Your task to perform on an android device: Search for the best rated 4K TV on Best Buy. Image 0: 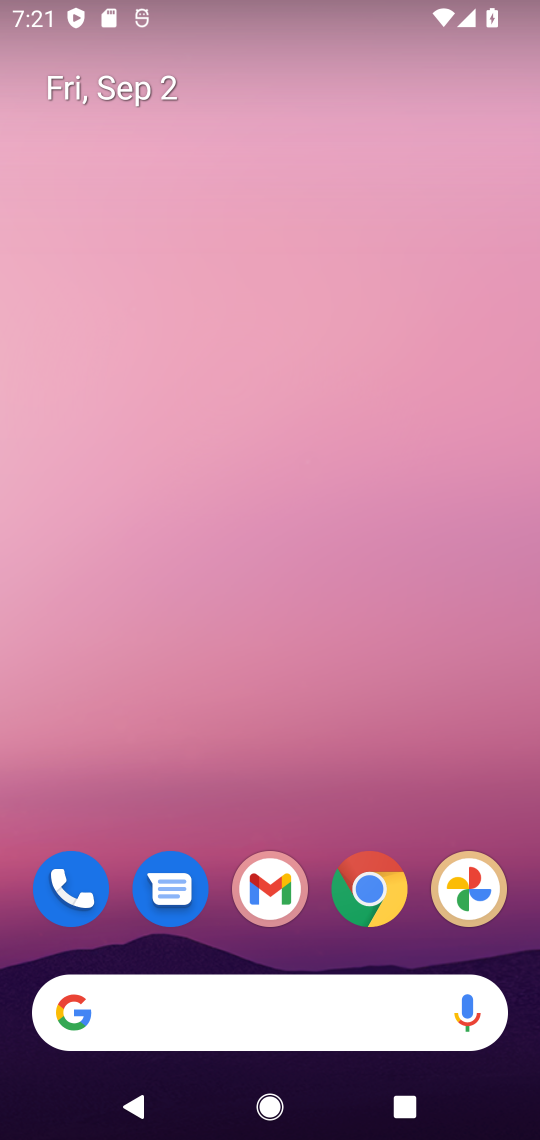
Step 0: click (225, 994)
Your task to perform on an android device: Search for the best rated 4K TV on Best Buy. Image 1: 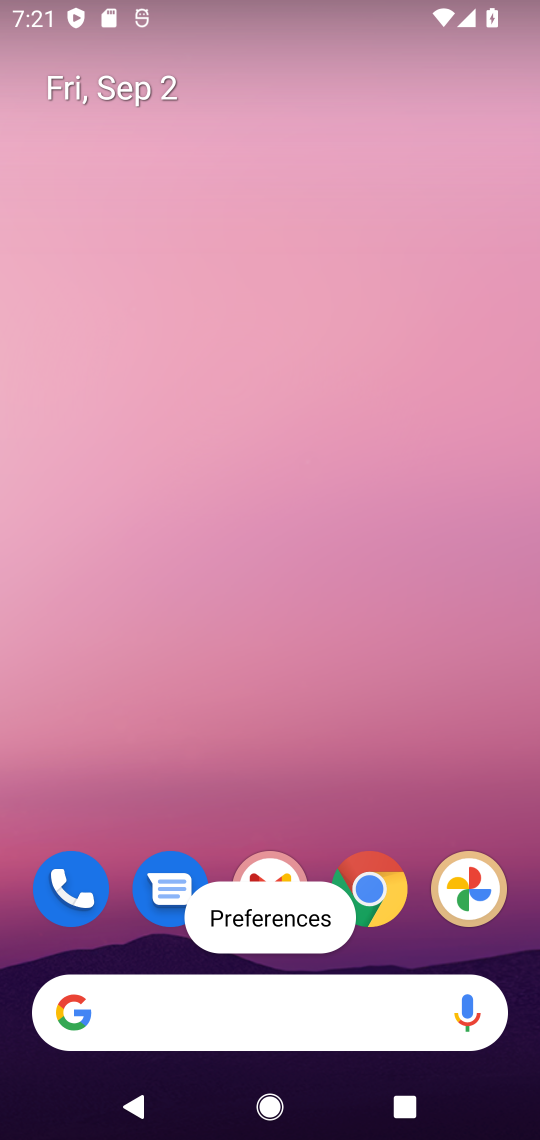
Step 1: click (251, 994)
Your task to perform on an android device: Search for the best rated 4K TV on Best Buy. Image 2: 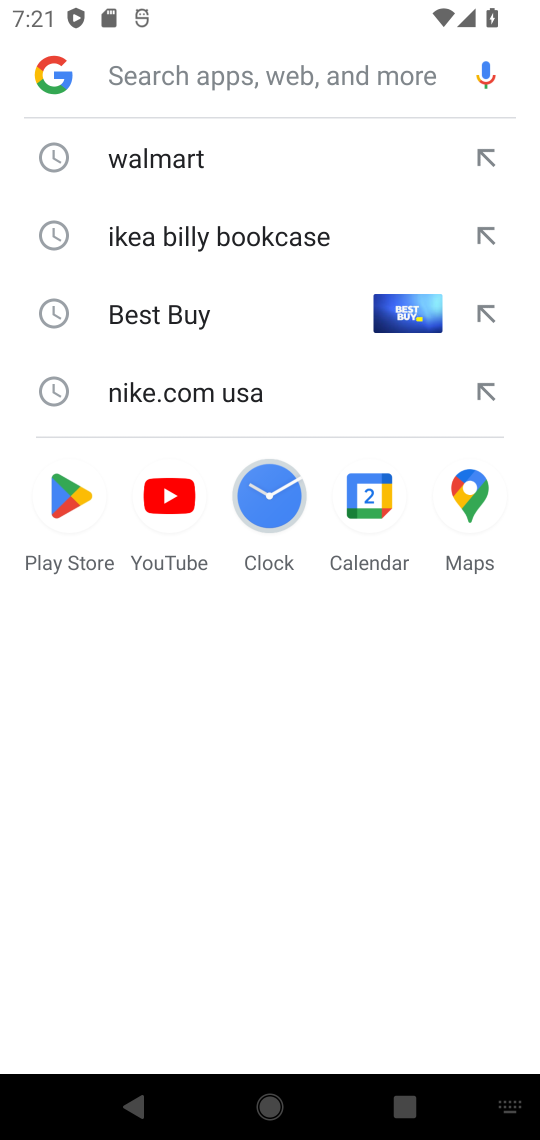
Step 2: click (200, 305)
Your task to perform on an android device: Search for the best rated 4K TV on Best Buy. Image 3: 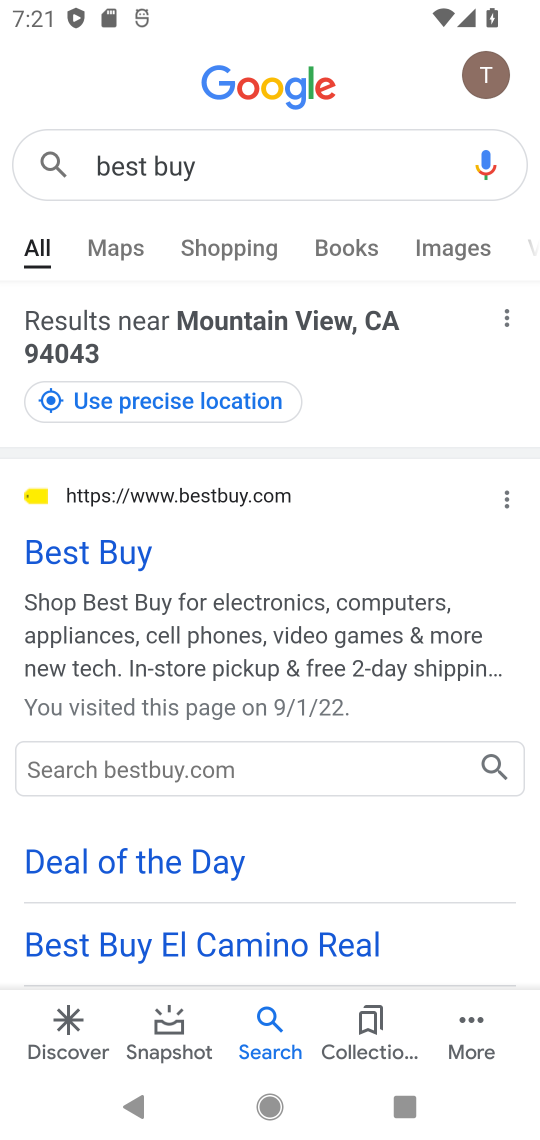
Step 3: click (121, 539)
Your task to perform on an android device: Search for the best rated 4K TV on Best Buy. Image 4: 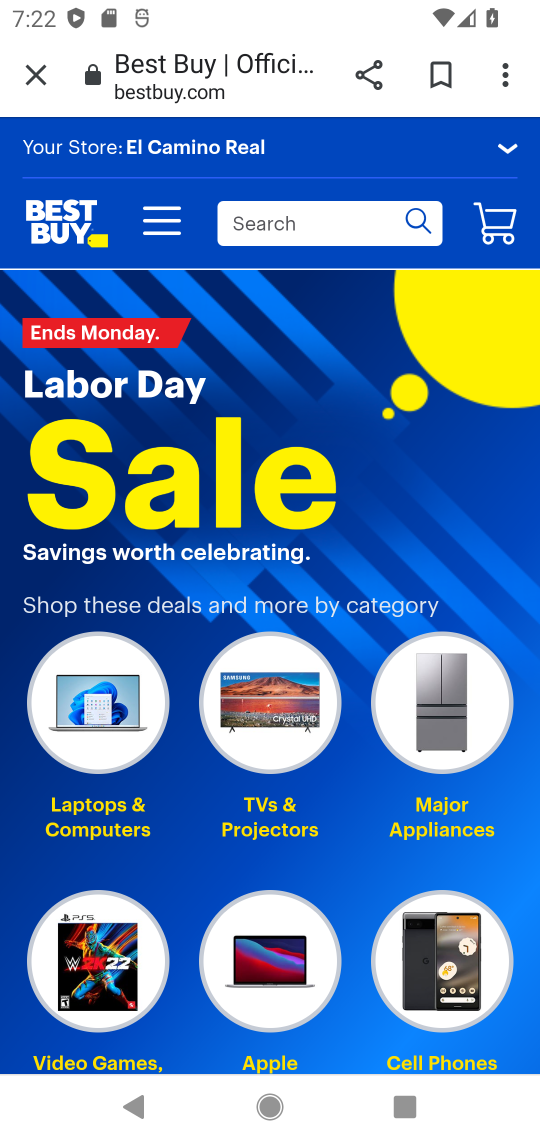
Step 4: click (311, 245)
Your task to perform on an android device: Search for the best rated 4K TV on Best Buy. Image 5: 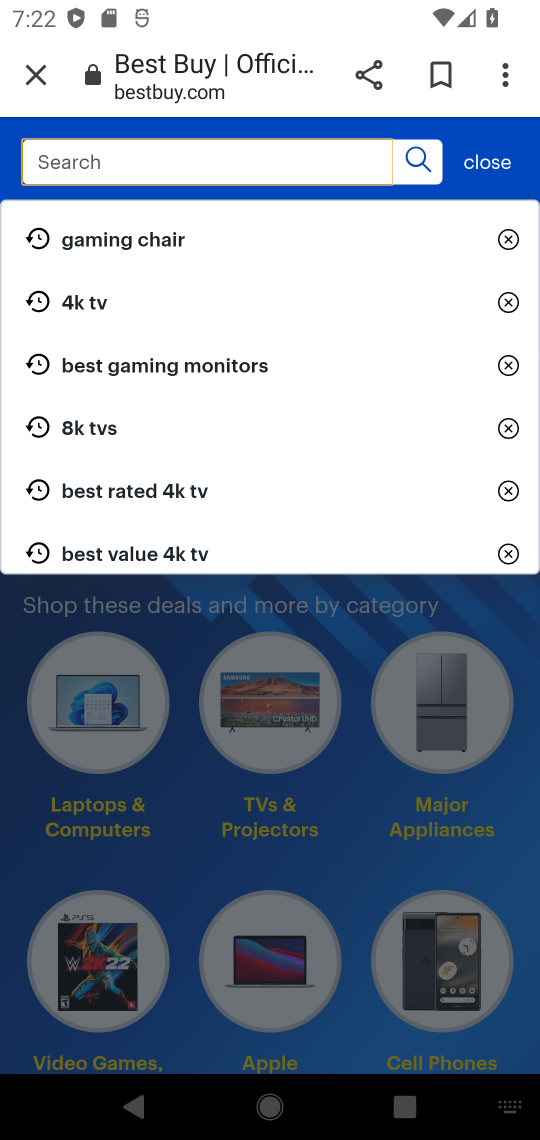
Step 5: type "4K TV"
Your task to perform on an android device: Search for the best rated 4K TV on Best Buy. Image 6: 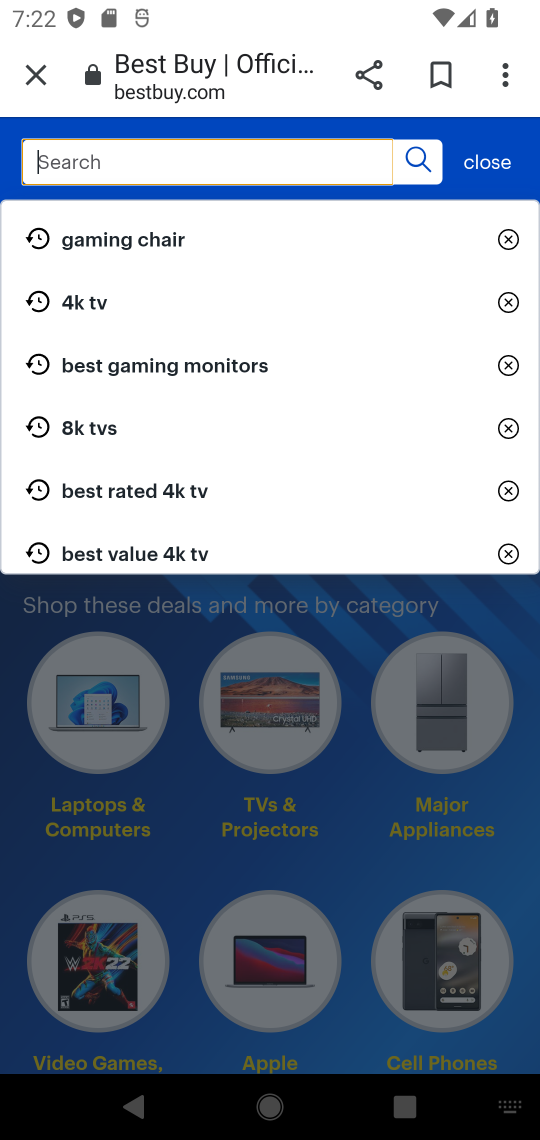
Step 6: type ""
Your task to perform on an android device: Search for the best rated 4K TV on Best Buy. Image 7: 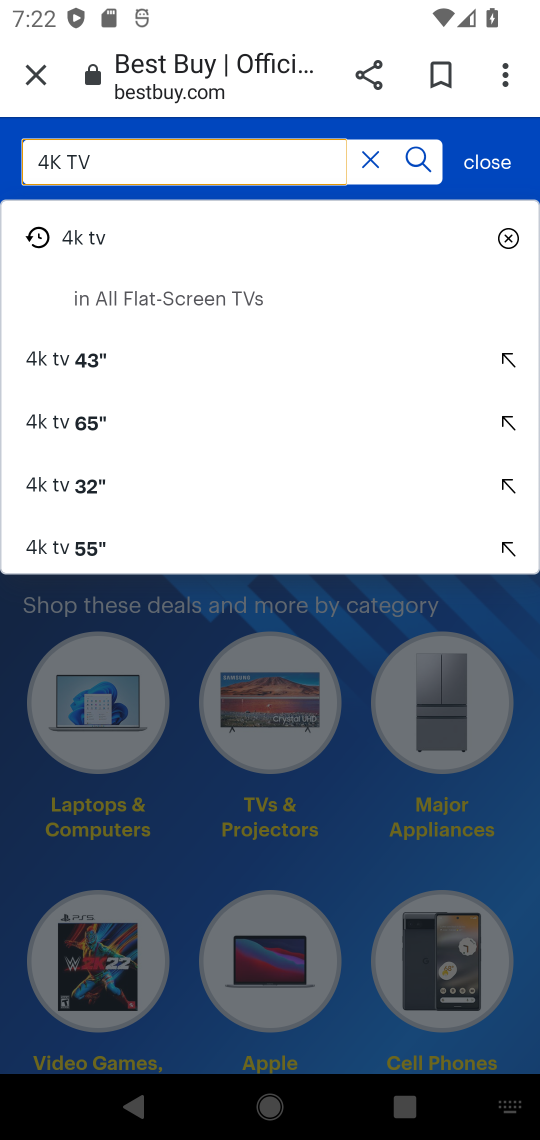
Step 7: click (132, 223)
Your task to perform on an android device: Search for the best rated 4K TV on Best Buy. Image 8: 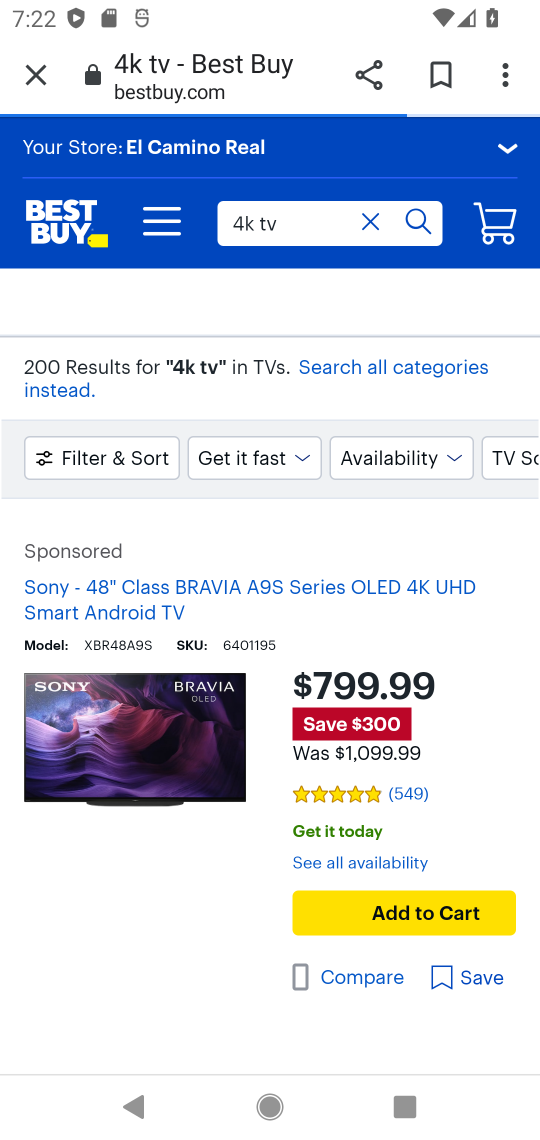
Step 8: task complete